Your task to perform on an android device: open a bookmark in the chrome app Image 0: 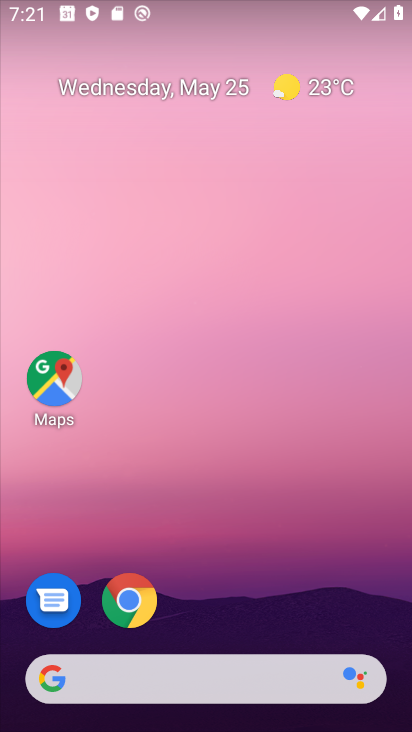
Step 0: click (130, 601)
Your task to perform on an android device: open a bookmark in the chrome app Image 1: 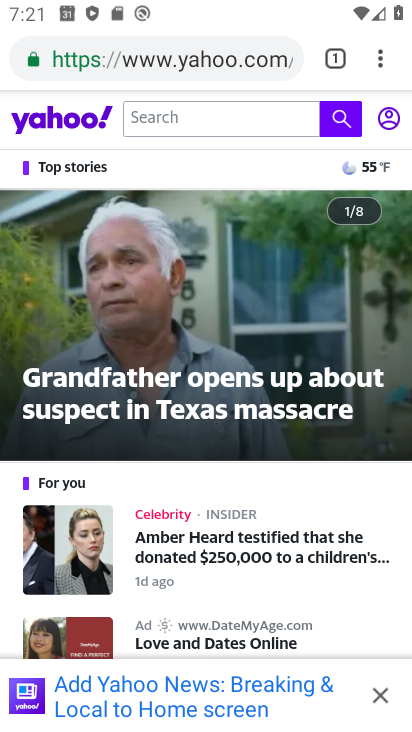
Step 1: click (379, 63)
Your task to perform on an android device: open a bookmark in the chrome app Image 2: 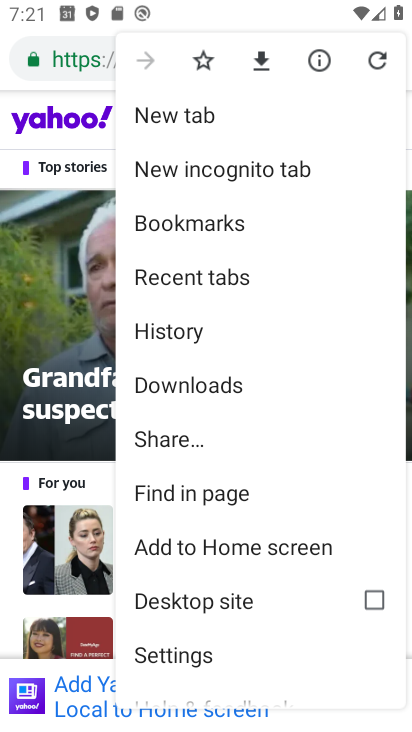
Step 2: click (220, 228)
Your task to perform on an android device: open a bookmark in the chrome app Image 3: 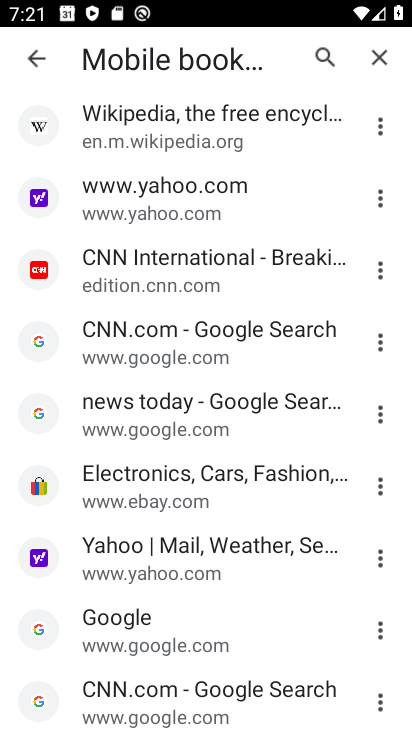
Step 3: task complete